Your task to perform on an android device: check storage Image 0: 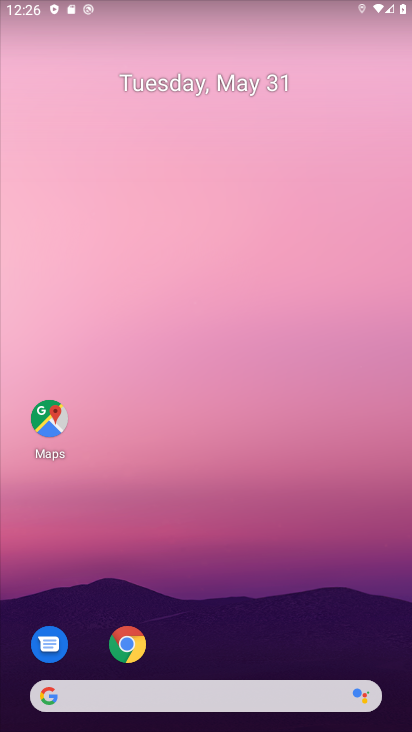
Step 0: drag from (277, 534) to (277, 7)
Your task to perform on an android device: check storage Image 1: 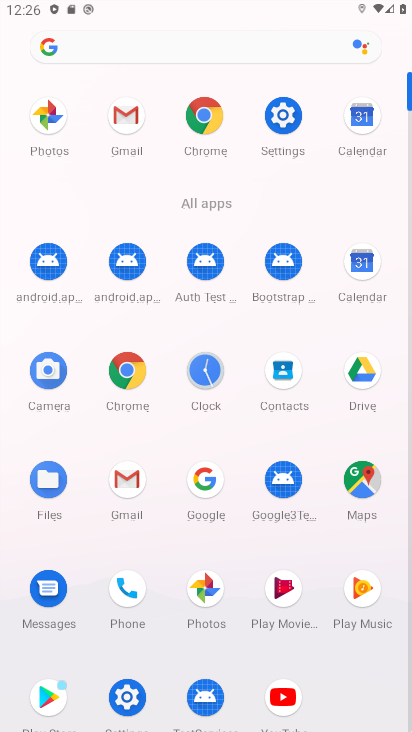
Step 1: click (287, 120)
Your task to perform on an android device: check storage Image 2: 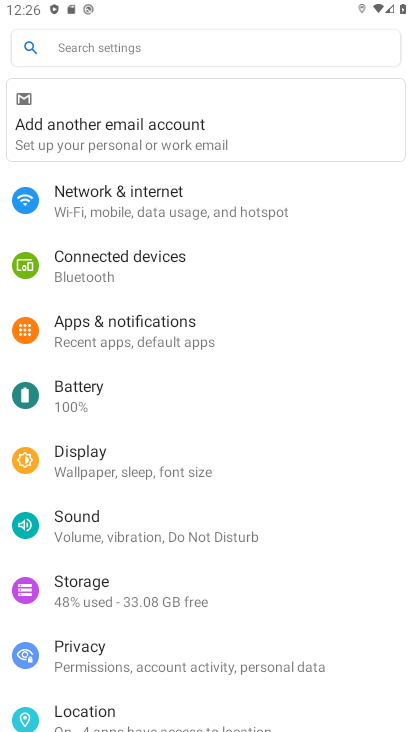
Step 2: click (90, 593)
Your task to perform on an android device: check storage Image 3: 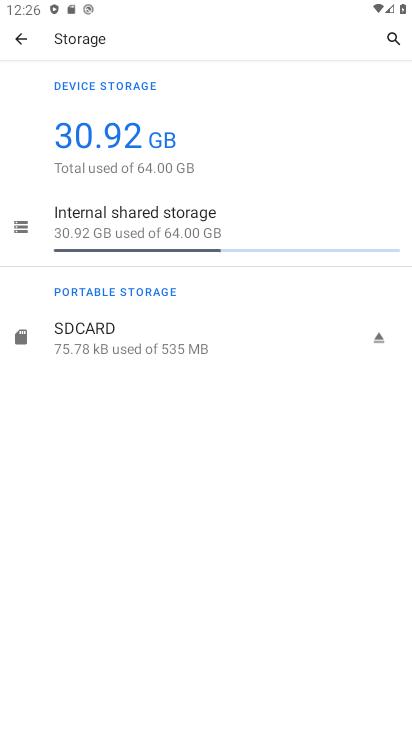
Step 3: task complete